Your task to perform on an android device: Show me recent news Image 0: 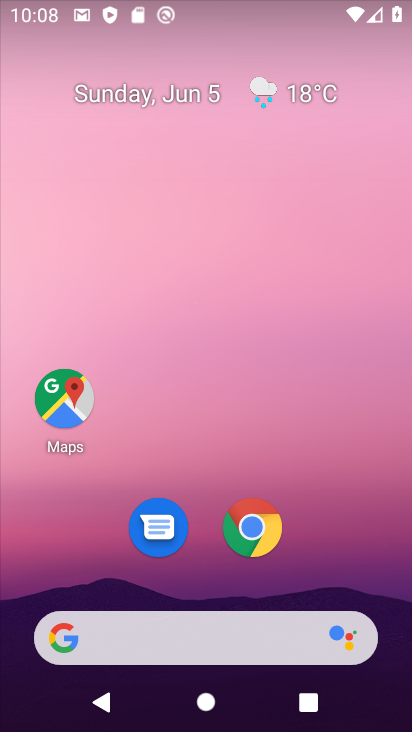
Step 0: click (145, 650)
Your task to perform on an android device: Show me recent news Image 1: 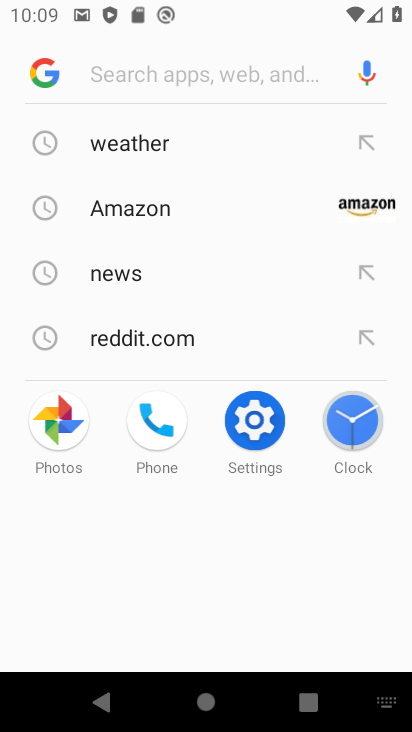
Step 1: click (114, 269)
Your task to perform on an android device: Show me recent news Image 2: 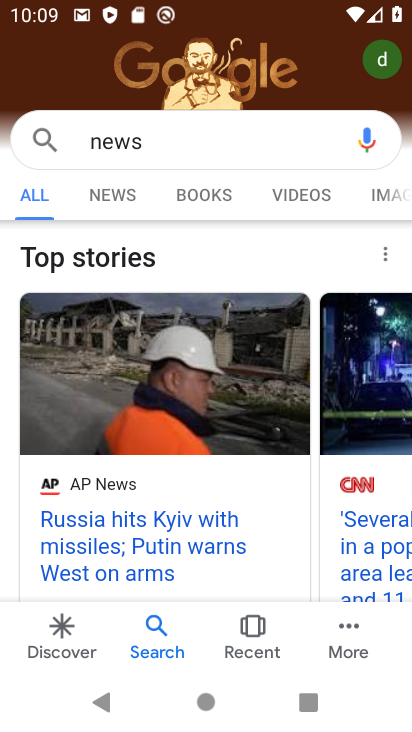
Step 2: task complete